Your task to perform on an android device: open a new tab in the chrome app Image 0: 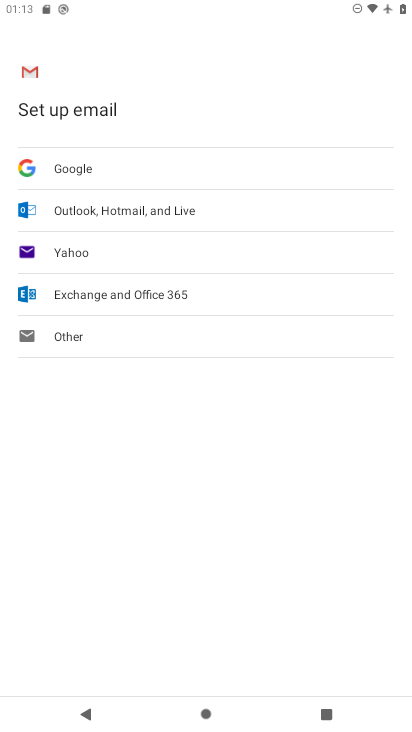
Step 0: press home button
Your task to perform on an android device: open a new tab in the chrome app Image 1: 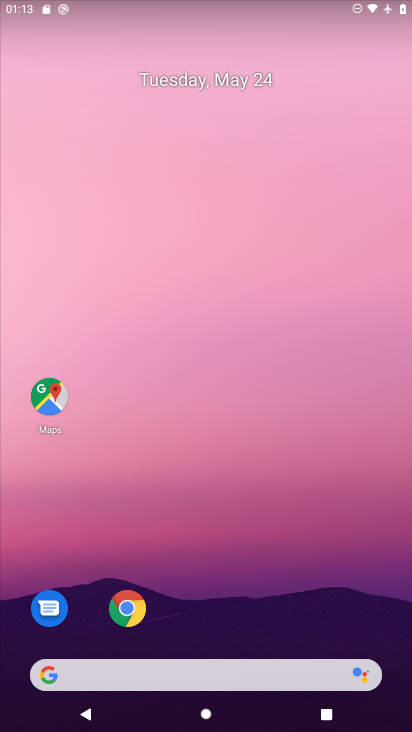
Step 1: click (139, 622)
Your task to perform on an android device: open a new tab in the chrome app Image 2: 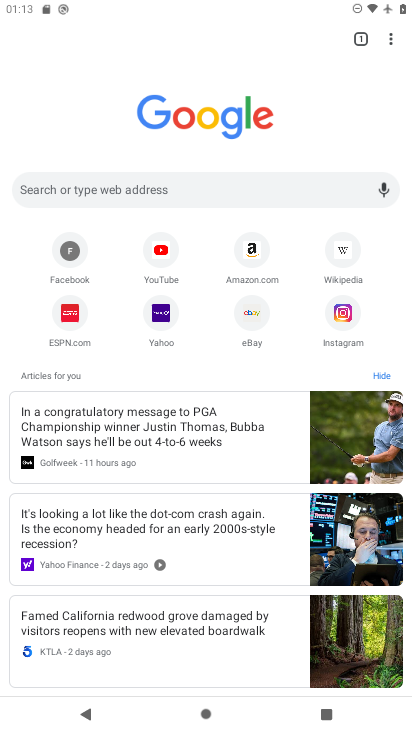
Step 2: click (356, 32)
Your task to perform on an android device: open a new tab in the chrome app Image 3: 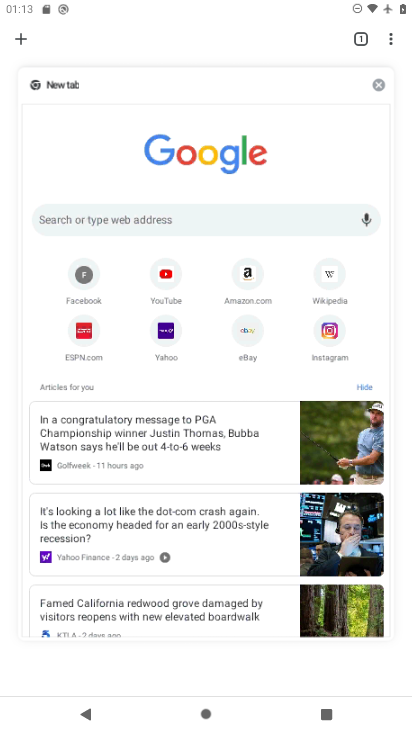
Step 3: click (18, 46)
Your task to perform on an android device: open a new tab in the chrome app Image 4: 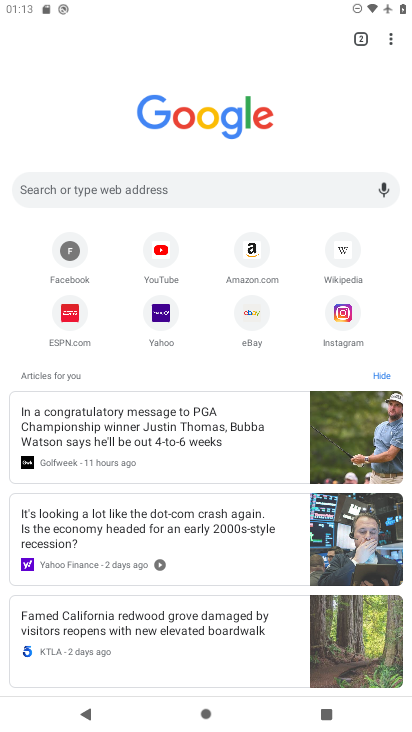
Step 4: task complete